Your task to perform on an android device: Is it going to rain tomorrow? Image 0: 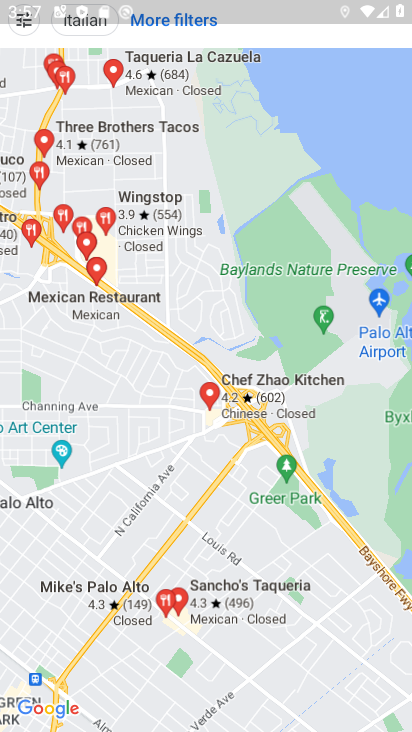
Step 0: press back button
Your task to perform on an android device: Is it going to rain tomorrow? Image 1: 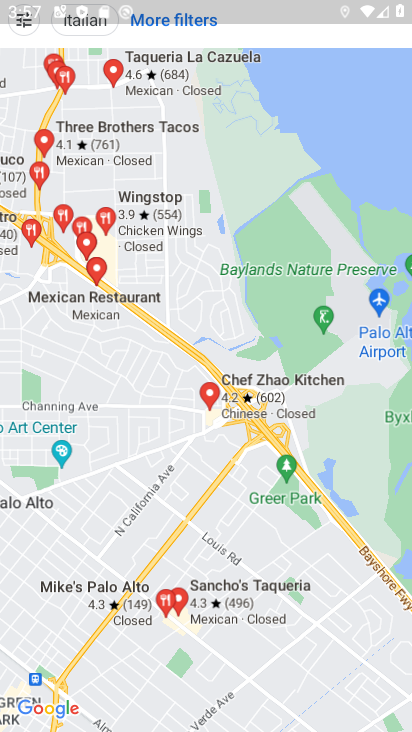
Step 1: press home button
Your task to perform on an android device: Is it going to rain tomorrow? Image 2: 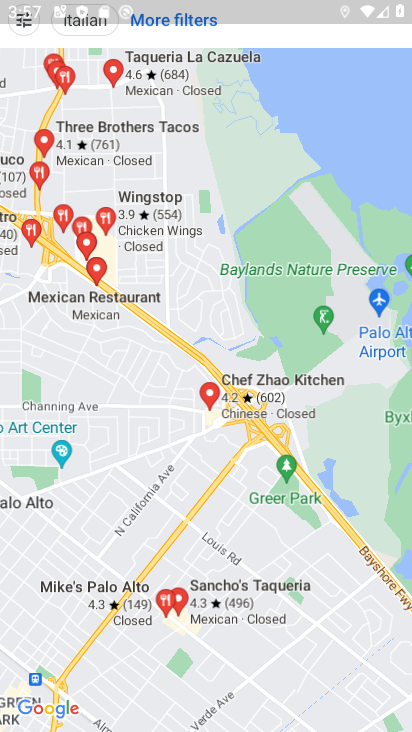
Step 2: press home button
Your task to perform on an android device: Is it going to rain tomorrow? Image 3: 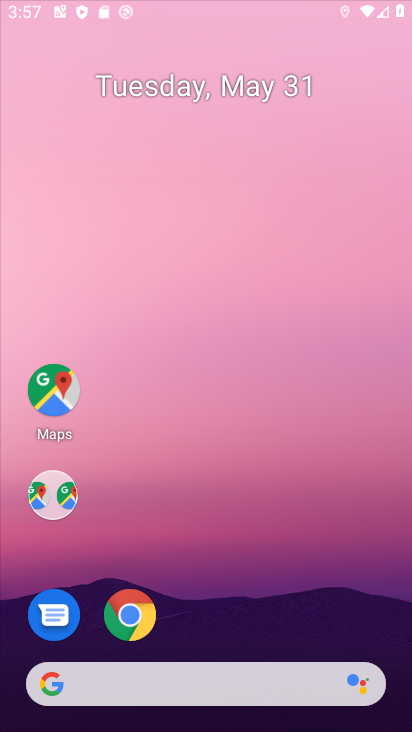
Step 3: press home button
Your task to perform on an android device: Is it going to rain tomorrow? Image 4: 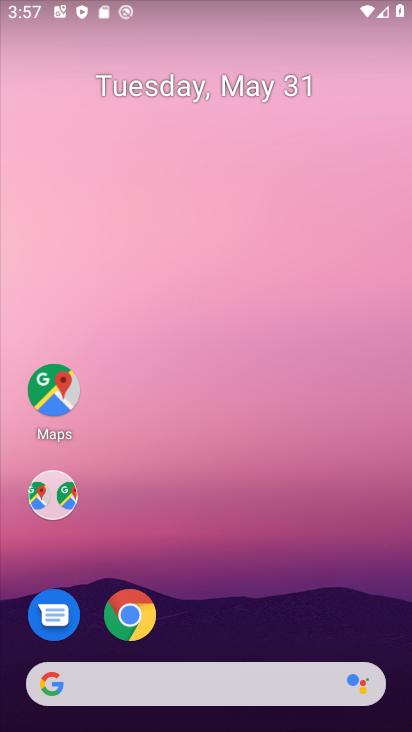
Step 4: drag from (1, 256) to (408, 541)
Your task to perform on an android device: Is it going to rain tomorrow? Image 5: 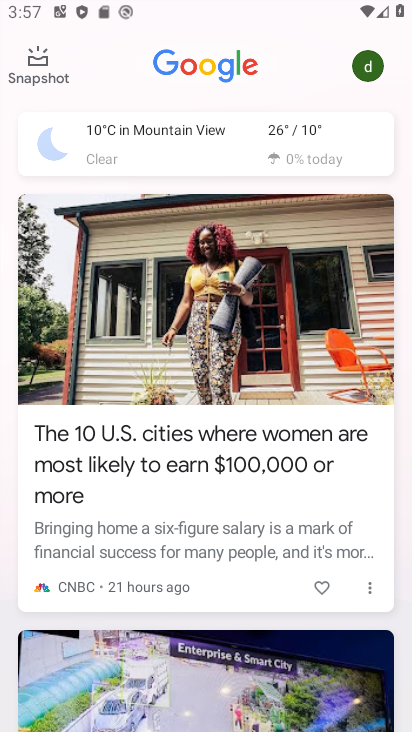
Step 5: click (175, 136)
Your task to perform on an android device: Is it going to rain tomorrow? Image 6: 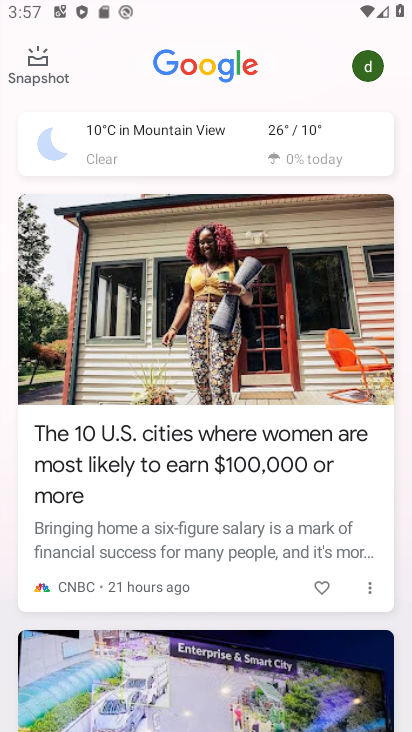
Step 6: click (172, 142)
Your task to perform on an android device: Is it going to rain tomorrow? Image 7: 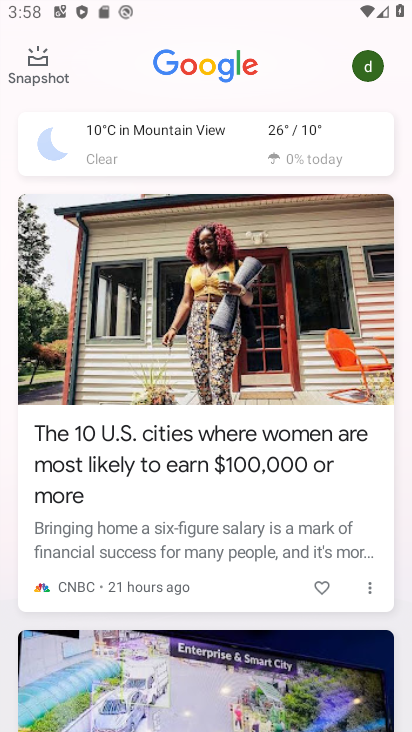
Step 7: click (172, 143)
Your task to perform on an android device: Is it going to rain tomorrow? Image 8: 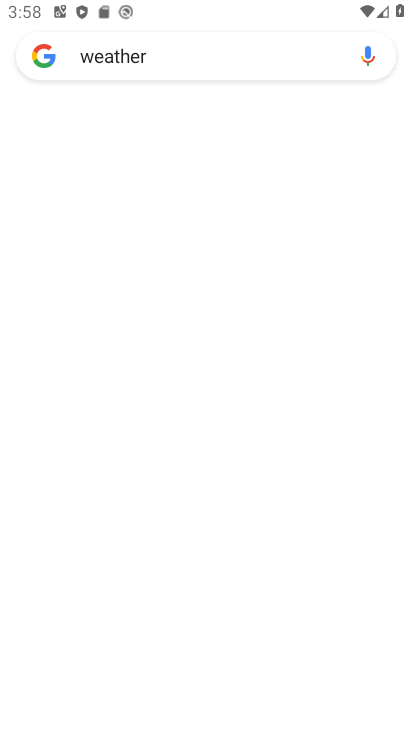
Step 8: click (183, 179)
Your task to perform on an android device: Is it going to rain tomorrow? Image 9: 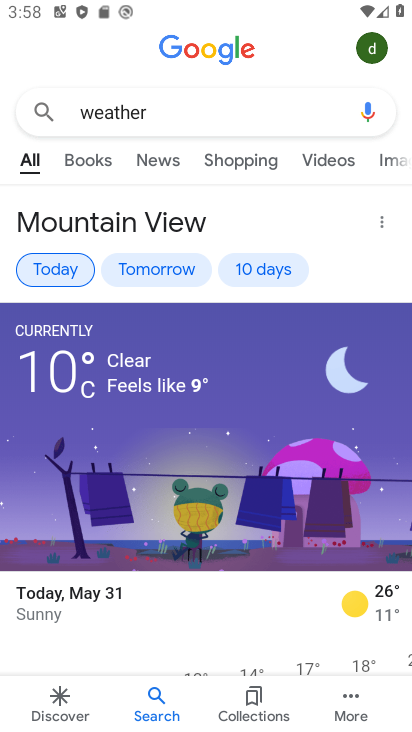
Step 9: click (150, 276)
Your task to perform on an android device: Is it going to rain tomorrow? Image 10: 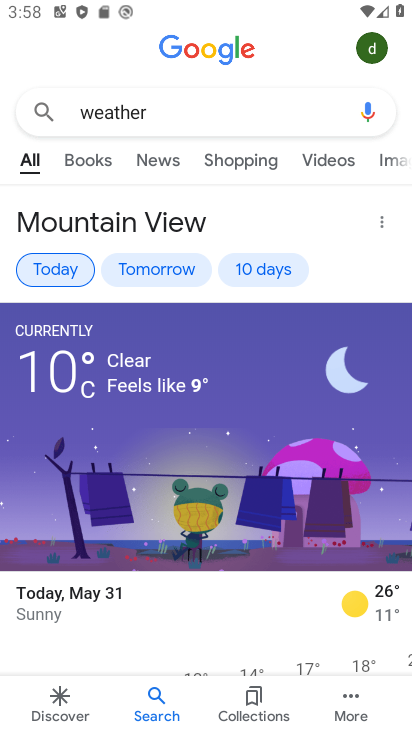
Step 10: click (151, 276)
Your task to perform on an android device: Is it going to rain tomorrow? Image 11: 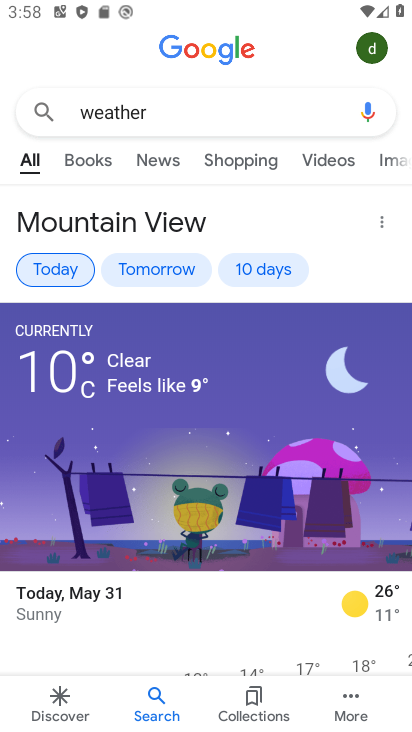
Step 11: click (159, 272)
Your task to perform on an android device: Is it going to rain tomorrow? Image 12: 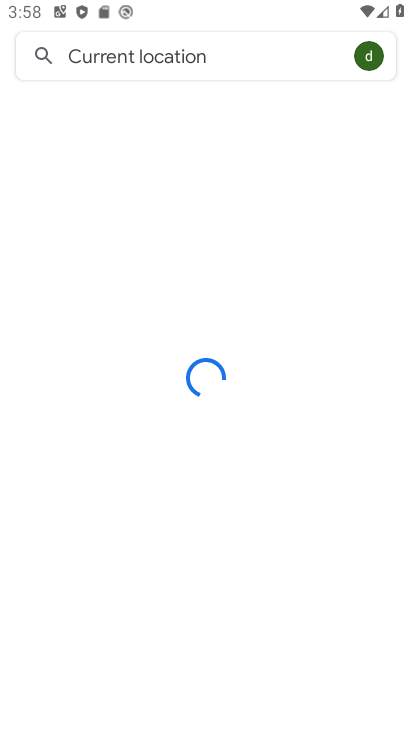
Step 12: click (165, 266)
Your task to perform on an android device: Is it going to rain tomorrow? Image 13: 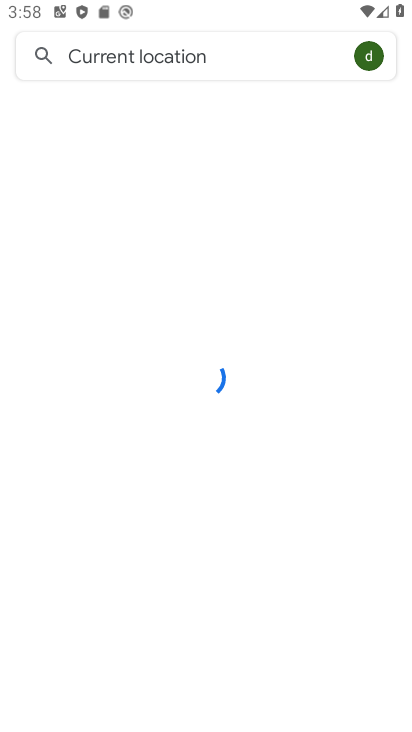
Step 13: click (165, 266)
Your task to perform on an android device: Is it going to rain tomorrow? Image 14: 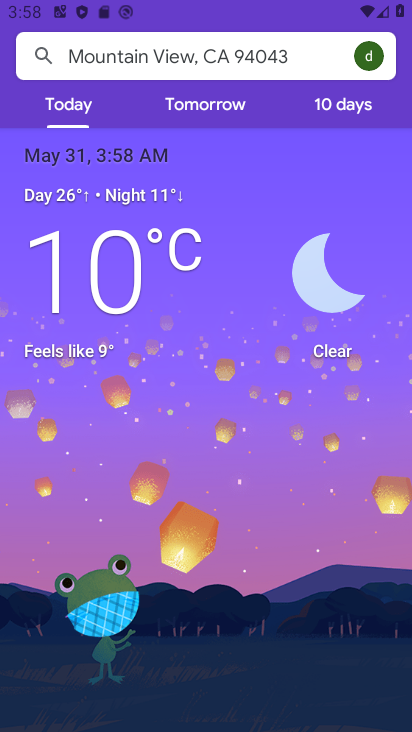
Step 14: task complete